Your task to perform on an android device: Open the Play Movies app and select the watchlist tab. Image 0: 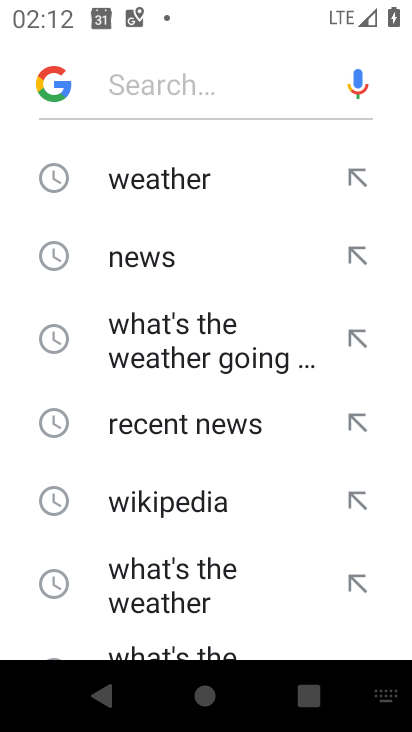
Step 0: press home button
Your task to perform on an android device: Open the Play Movies app and select the watchlist tab. Image 1: 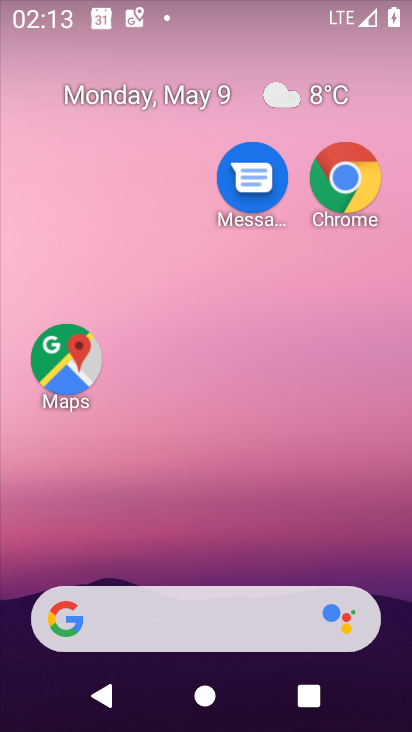
Step 1: drag from (274, 552) to (314, 11)
Your task to perform on an android device: Open the Play Movies app and select the watchlist tab. Image 2: 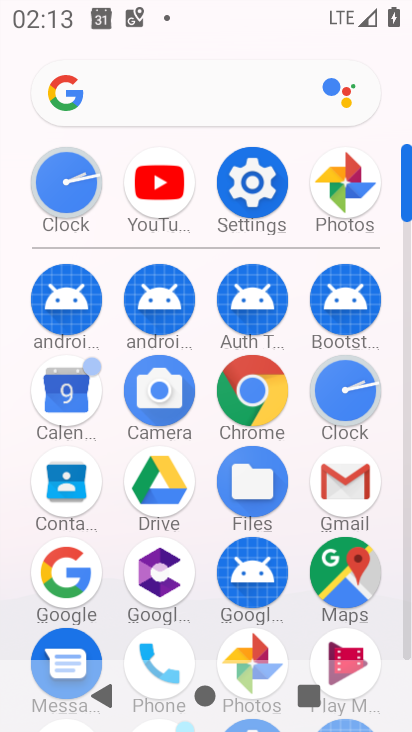
Step 2: click (349, 636)
Your task to perform on an android device: Open the Play Movies app and select the watchlist tab. Image 3: 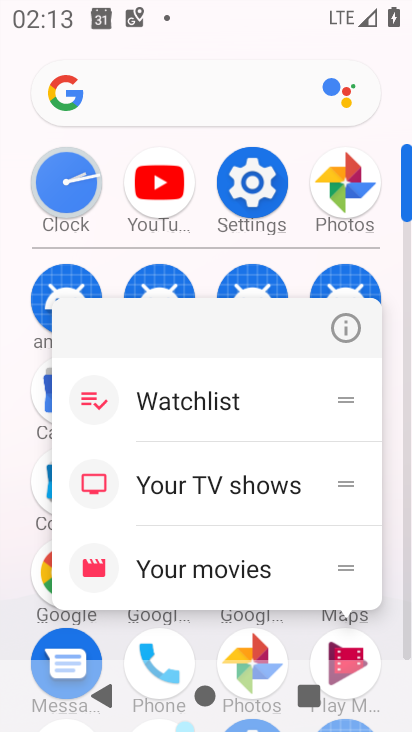
Step 3: click (344, 644)
Your task to perform on an android device: Open the Play Movies app and select the watchlist tab. Image 4: 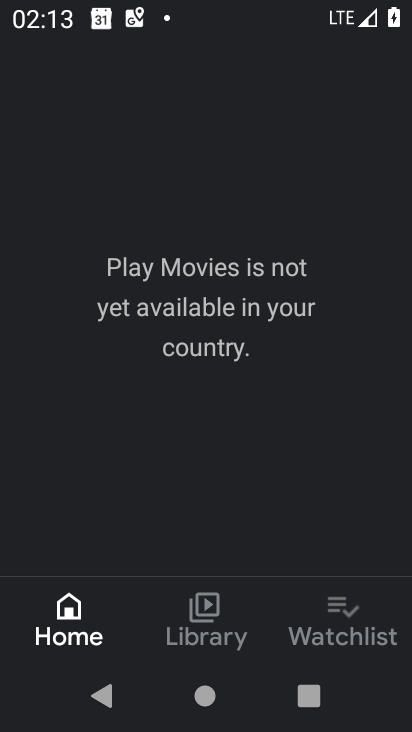
Step 4: click (327, 589)
Your task to perform on an android device: Open the Play Movies app and select the watchlist tab. Image 5: 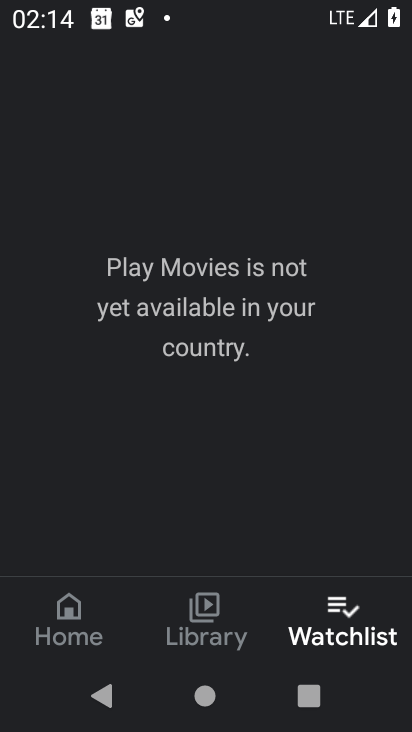
Step 5: task complete